Your task to perform on an android device: Open wifi settings Image 0: 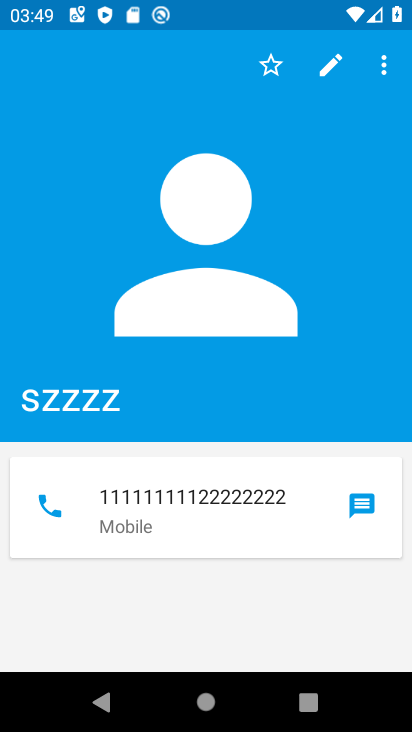
Step 0: press home button
Your task to perform on an android device: Open wifi settings Image 1: 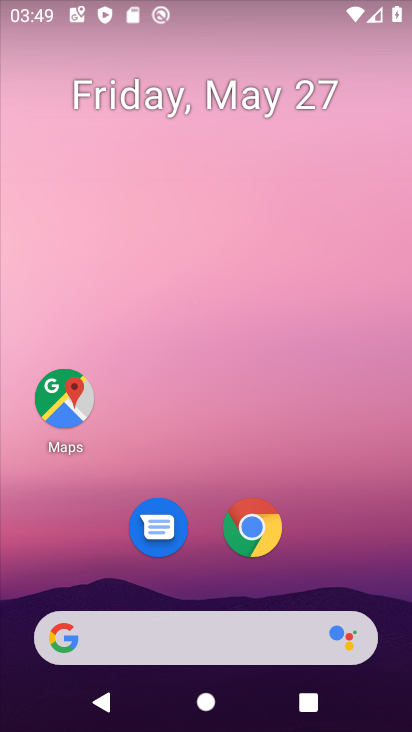
Step 1: drag from (266, 0) to (159, 671)
Your task to perform on an android device: Open wifi settings Image 2: 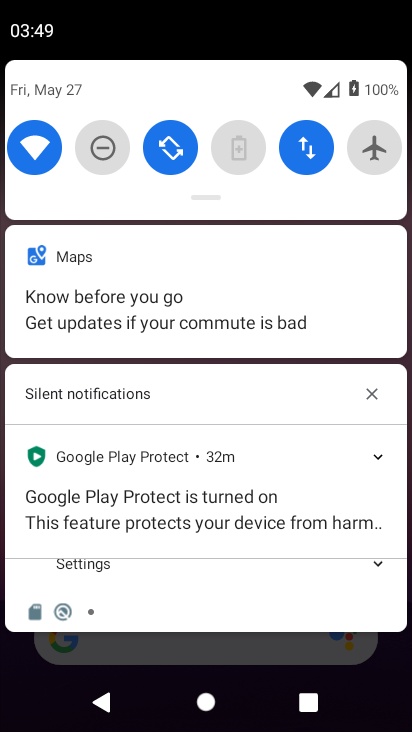
Step 2: click (40, 164)
Your task to perform on an android device: Open wifi settings Image 3: 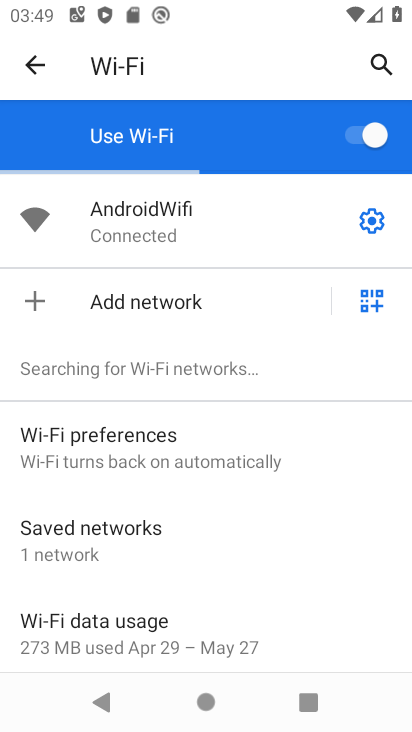
Step 3: task complete